Your task to perform on an android device: open the mobile data screen to see how much data has been used Image 0: 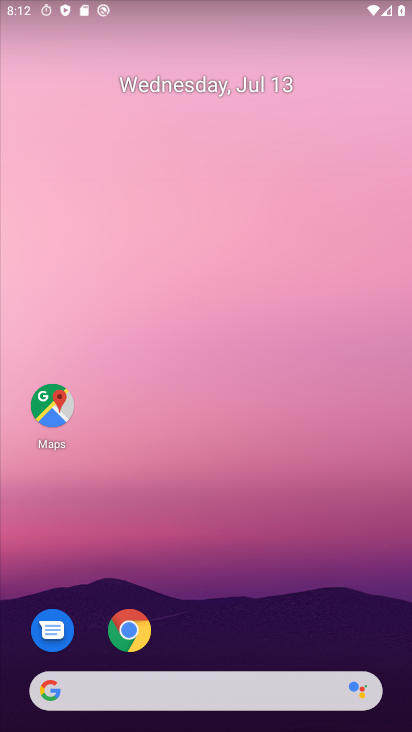
Step 0: drag from (161, 617) to (176, 193)
Your task to perform on an android device: open the mobile data screen to see how much data has been used Image 1: 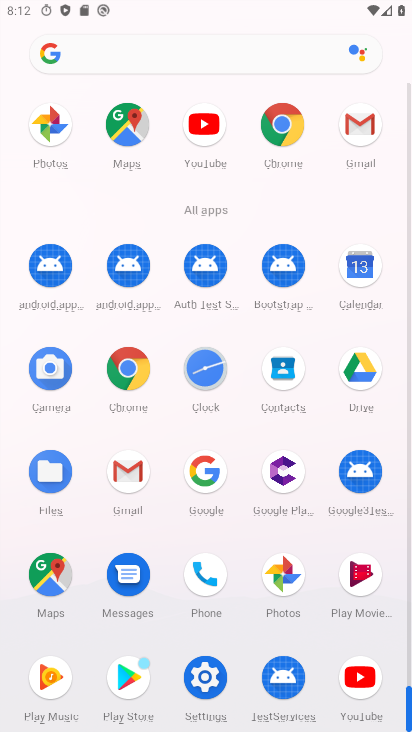
Step 1: drag from (177, 624) to (221, 207)
Your task to perform on an android device: open the mobile data screen to see how much data has been used Image 2: 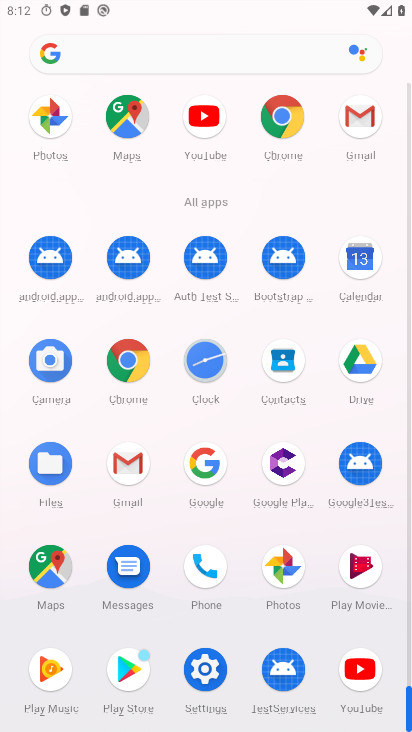
Step 2: click (202, 664)
Your task to perform on an android device: open the mobile data screen to see how much data has been used Image 3: 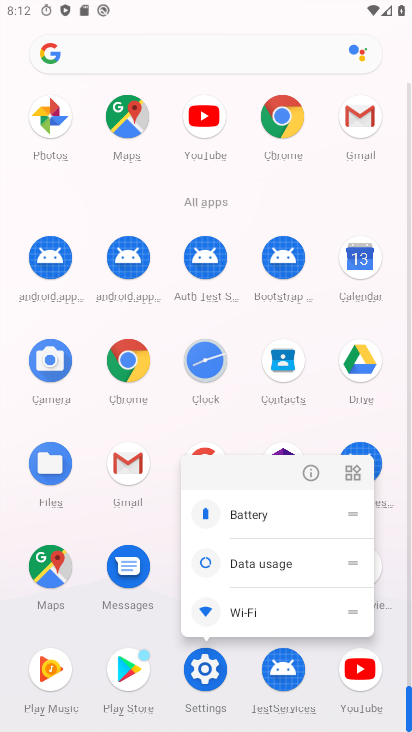
Step 3: click (313, 473)
Your task to perform on an android device: open the mobile data screen to see how much data has been used Image 4: 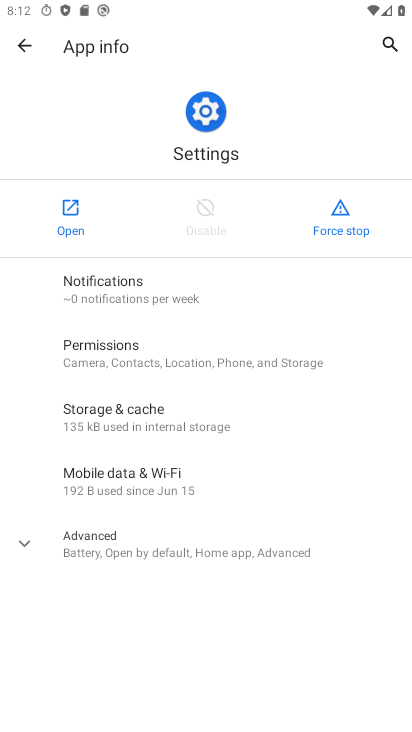
Step 4: click (63, 223)
Your task to perform on an android device: open the mobile data screen to see how much data has been used Image 5: 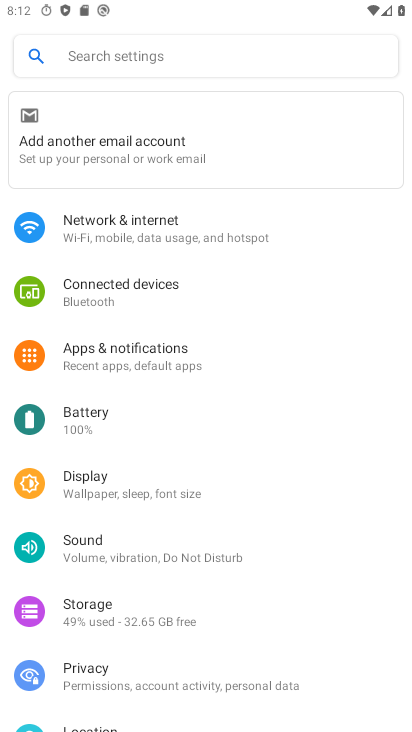
Step 5: drag from (275, 652) to (277, 406)
Your task to perform on an android device: open the mobile data screen to see how much data has been used Image 6: 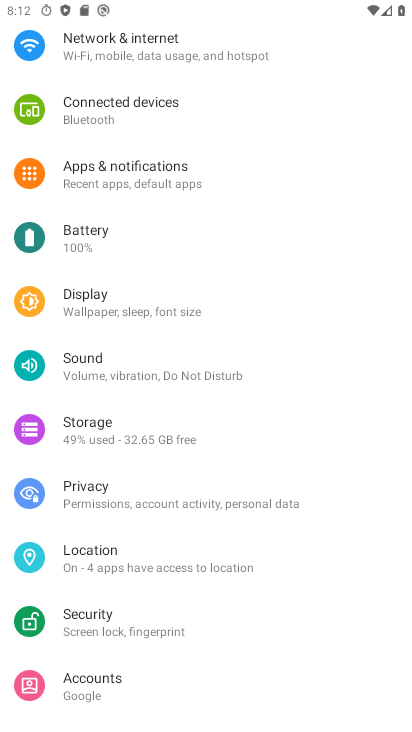
Step 6: drag from (218, 579) to (242, 367)
Your task to perform on an android device: open the mobile data screen to see how much data has been used Image 7: 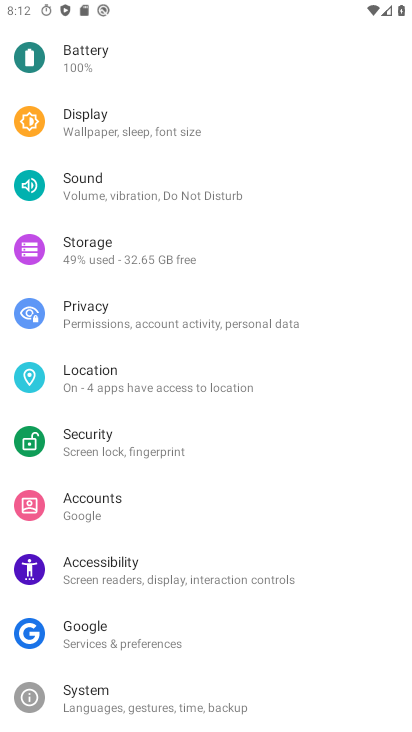
Step 7: drag from (248, 264) to (275, 703)
Your task to perform on an android device: open the mobile data screen to see how much data has been used Image 8: 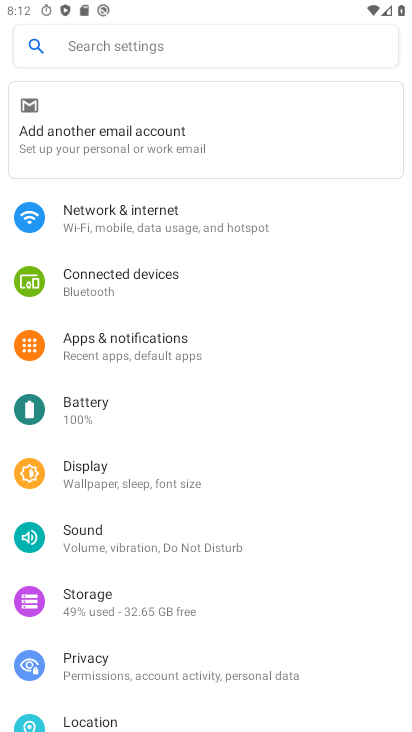
Step 8: click (169, 224)
Your task to perform on an android device: open the mobile data screen to see how much data has been used Image 9: 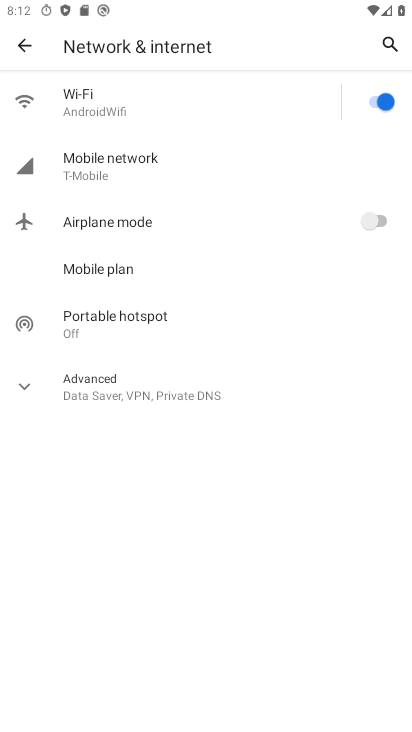
Step 9: click (125, 174)
Your task to perform on an android device: open the mobile data screen to see how much data has been used Image 10: 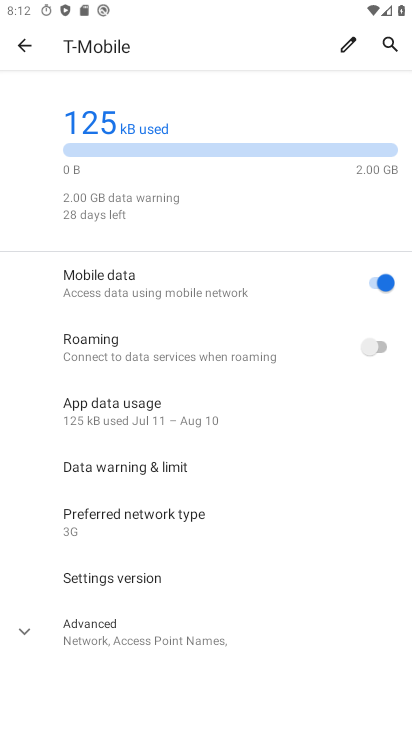
Step 10: task complete